Your task to perform on an android device: Open display settings Image 0: 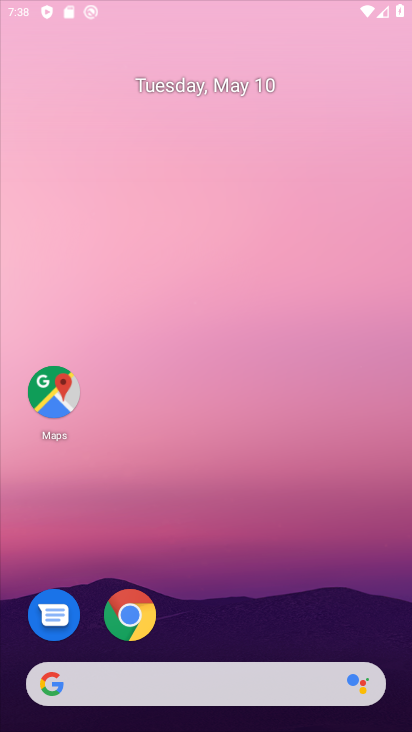
Step 0: click (210, 257)
Your task to perform on an android device: Open display settings Image 1: 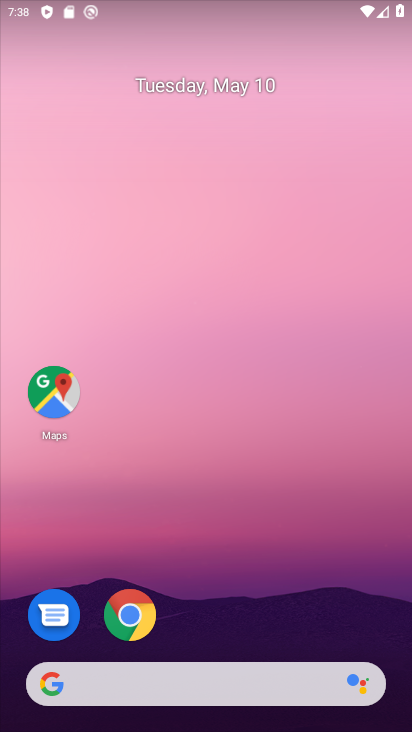
Step 1: drag from (204, 621) to (193, 132)
Your task to perform on an android device: Open display settings Image 2: 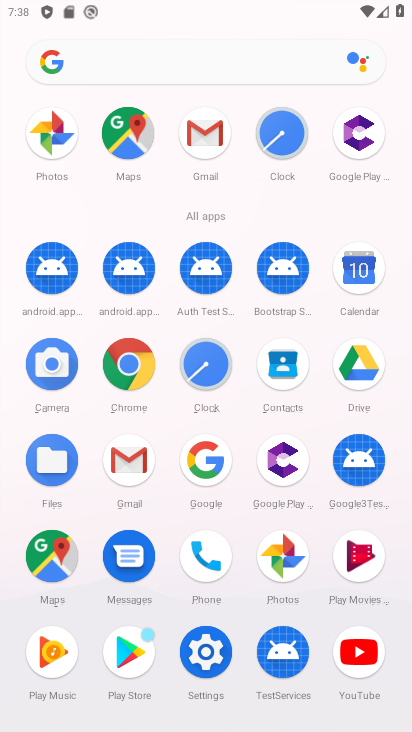
Step 2: click (203, 661)
Your task to perform on an android device: Open display settings Image 3: 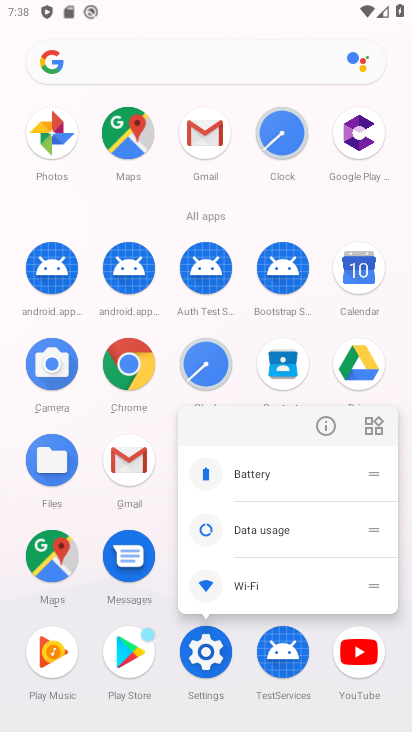
Step 3: click (331, 418)
Your task to perform on an android device: Open display settings Image 4: 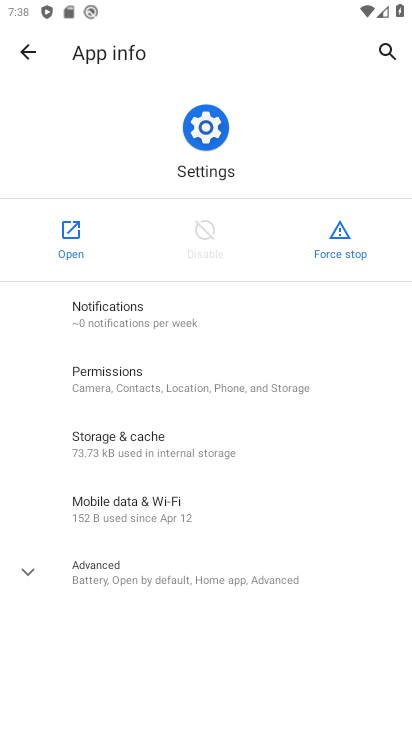
Step 4: click (58, 239)
Your task to perform on an android device: Open display settings Image 5: 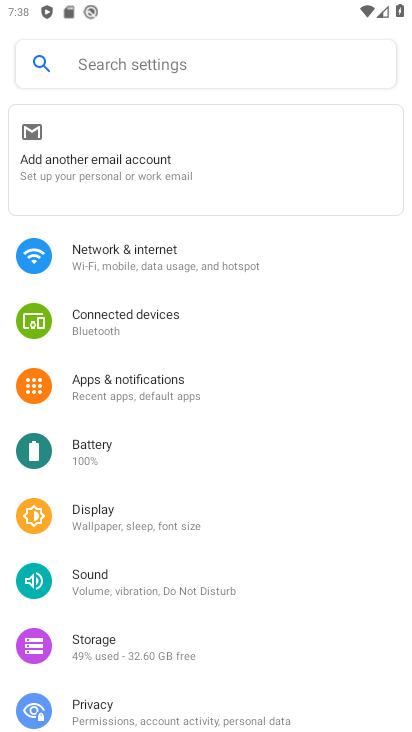
Step 5: click (96, 513)
Your task to perform on an android device: Open display settings Image 6: 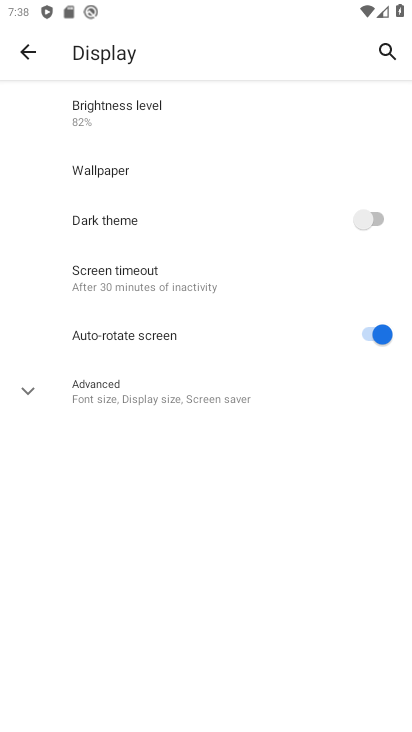
Step 6: task complete